Your task to perform on an android device: all mails in gmail Image 0: 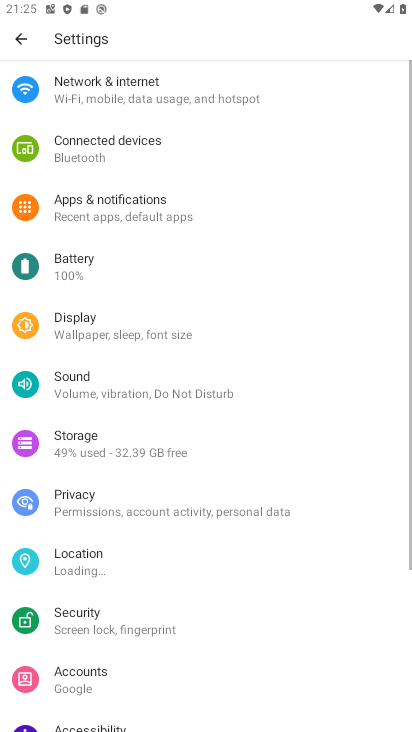
Step 0: press back button
Your task to perform on an android device: all mails in gmail Image 1: 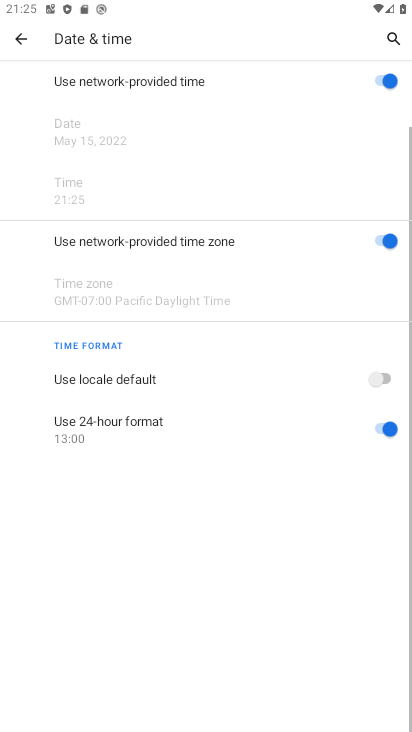
Step 1: press home button
Your task to perform on an android device: all mails in gmail Image 2: 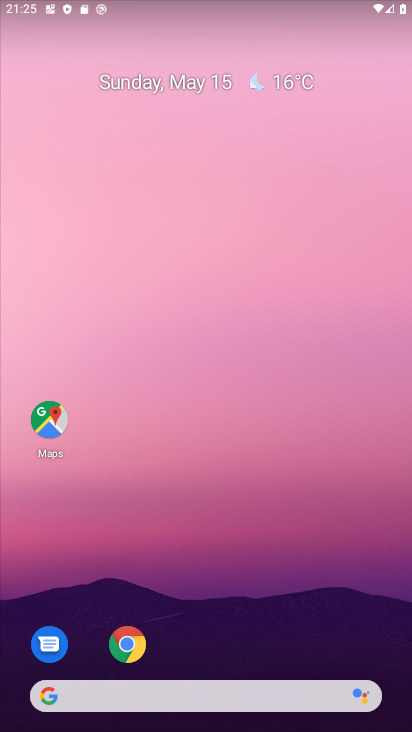
Step 2: drag from (179, 649) to (321, 63)
Your task to perform on an android device: all mails in gmail Image 3: 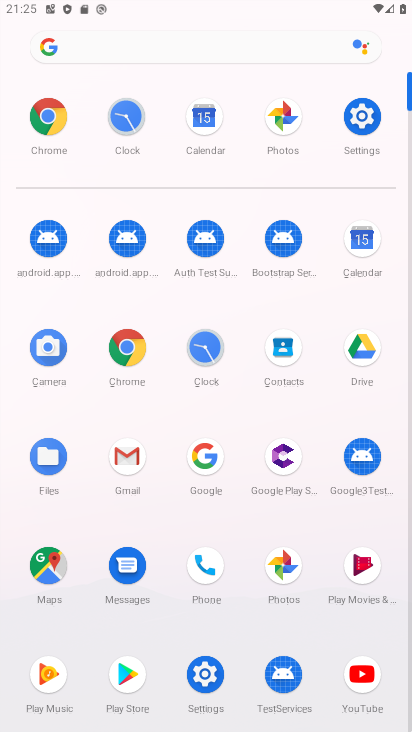
Step 3: click (135, 451)
Your task to perform on an android device: all mails in gmail Image 4: 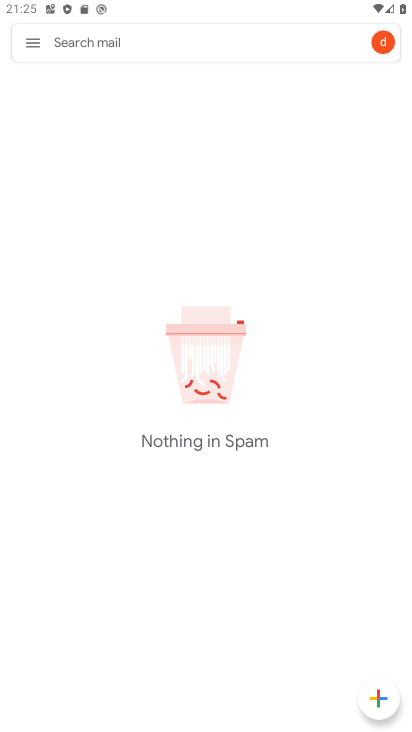
Step 4: click (30, 32)
Your task to perform on an android device: all mails in gmail Image 5: 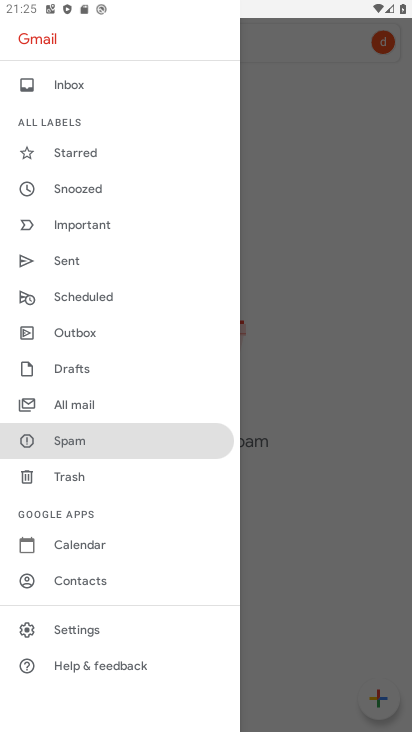
Step 5: click (108, 410)
Your task to perform on an android device: all mails in gmail Image 6: 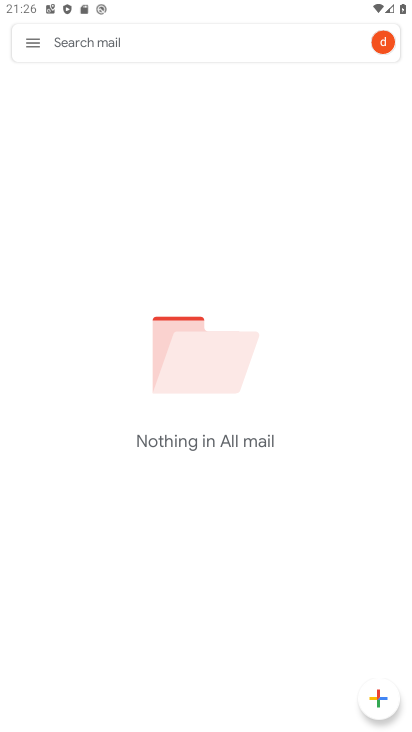
Step 6: task complete